Your task to perform on an android device: toggle sleep mode Image 0: 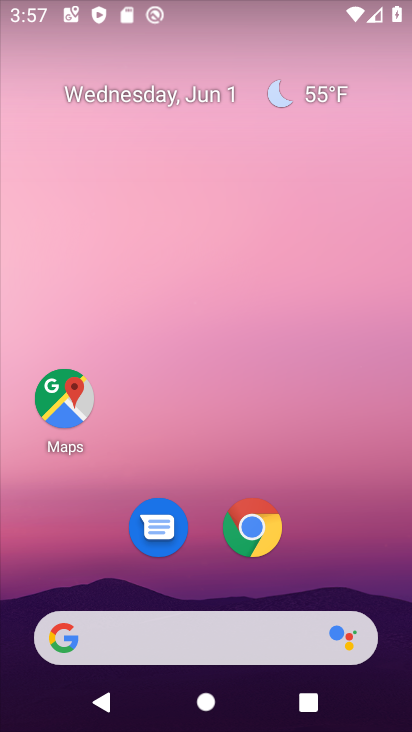
Step 0: drag from (299, 571) to (304, 45)
Your task to perform on an android device: toggle sleep mode Image 1: 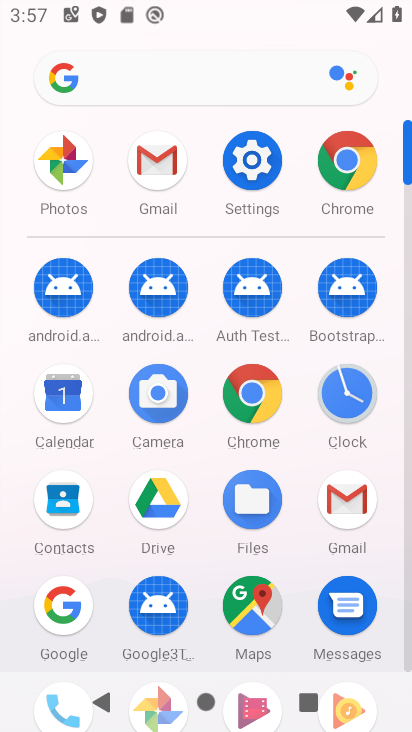
Step 1: click (266, 157)
Your task to perform on an android device: toggle sleep mode Image 2: 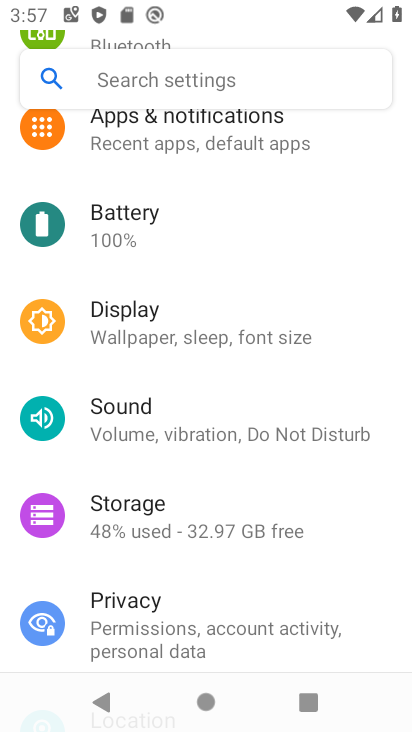
Step 2: drag from (302, 622) to (300, 303)
Your task to perform on an android device: toggle sleep mode Image 3: 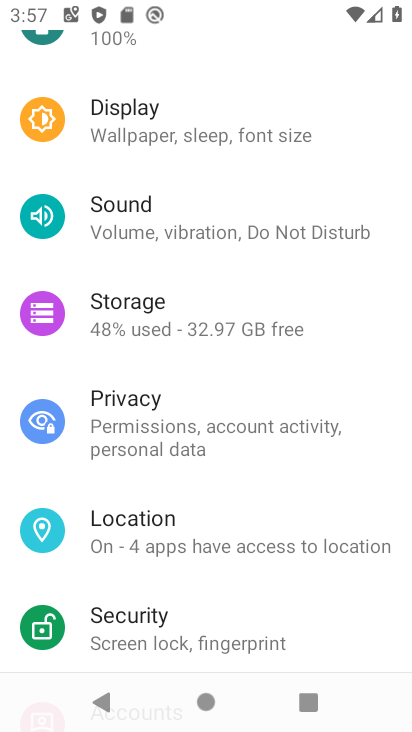
Step 3: click (224, 128)
Your task to perform on an android device: toggle sleep mode Image 4: 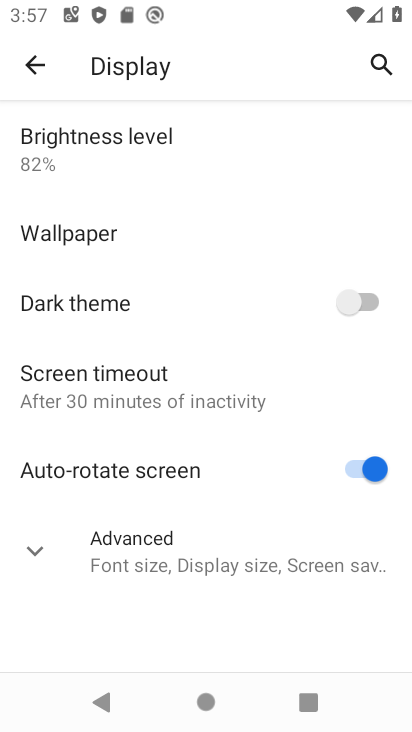
Step 4: click (56, 373)
Your task to perform on an android device: toggle sleep mode Image 5: 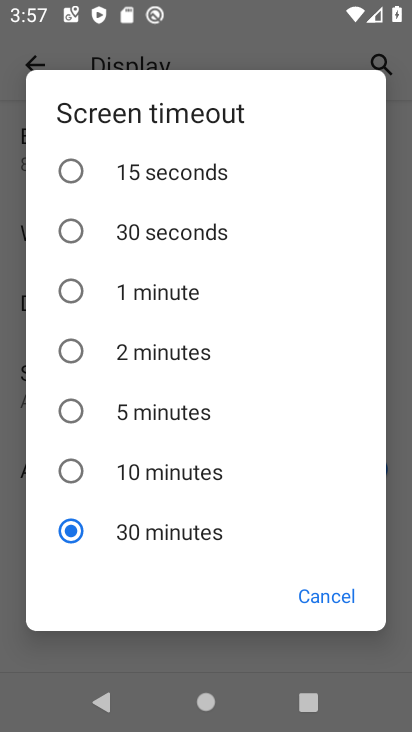
Step 5: click (124, 460)
Your task to perform on an android device: toggle sleep mode Image 6: 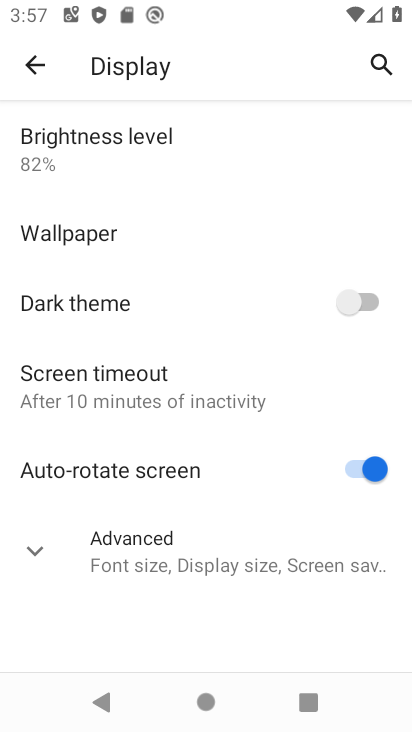
Step 6: task complete